Your task to perform on an android device: Go to ESPN.com Image 0: 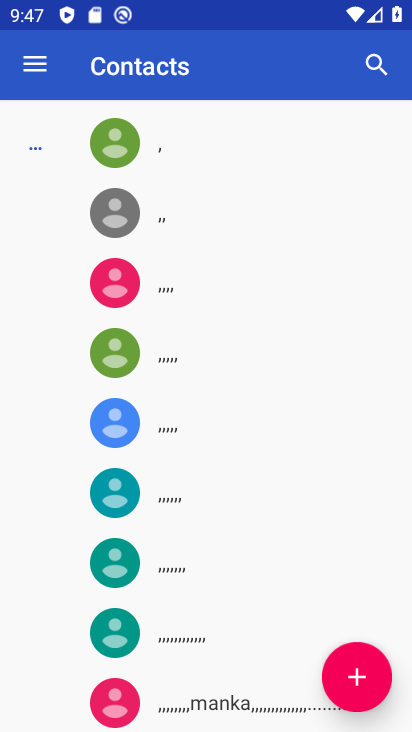
Step 0: press home button
Your task to perform on an android device: Go to ESPN.com Image 1: 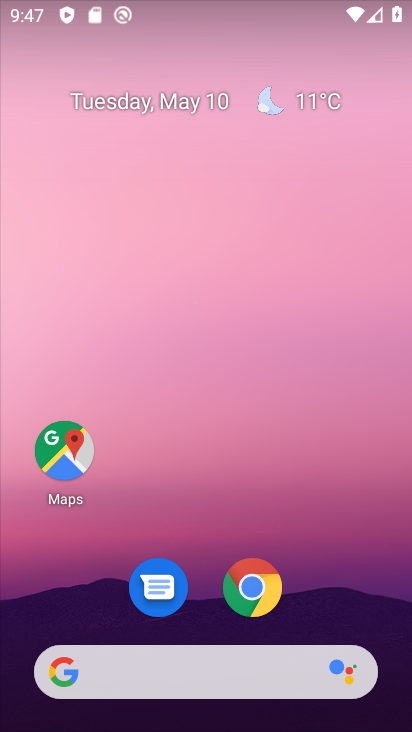
Step 1: click (264, 607)
Your task to perform on an android device: Go to ESPN.com Image 2: 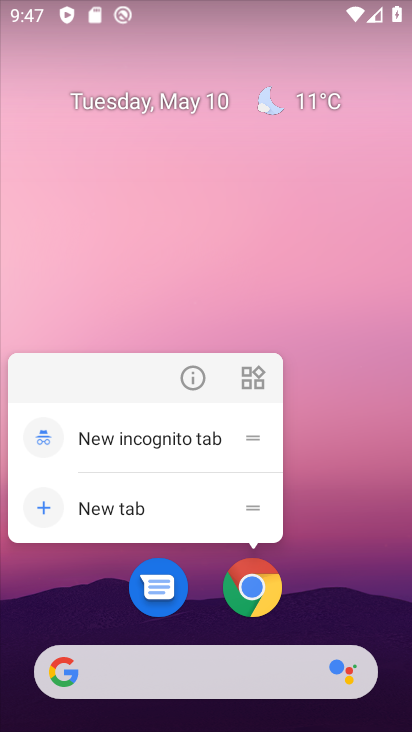
Step 2: click (251, 594)
Your task to perform on an android device: Go to ESPN.com Image 3: 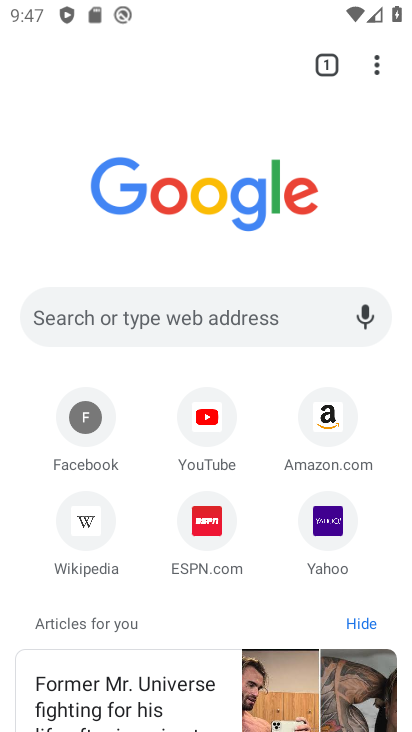
Step 3: click (211, 520)
Your task to perform on an android device: Go to ESPN.com Image 4: 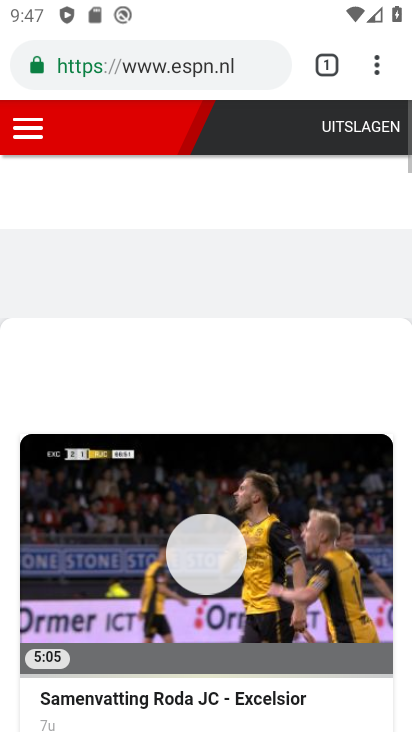
Step 4: task complete